Your task to perform on an android device: set the stopwatch Image 0: 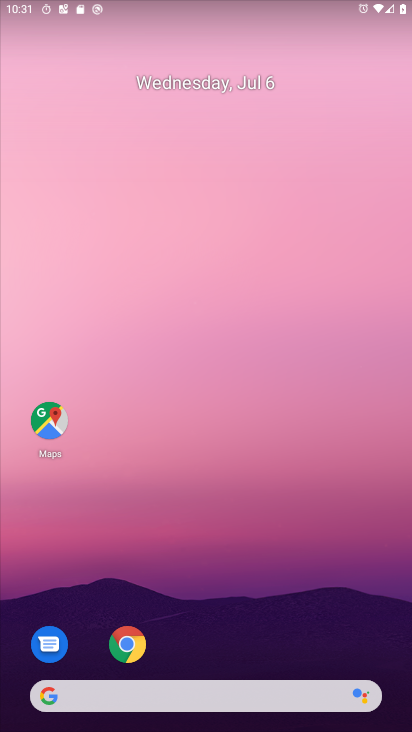
Step 0: drag from (209, 551) to (285, 49)
Your task to perform on an android device: set the stopwatch Image 1: 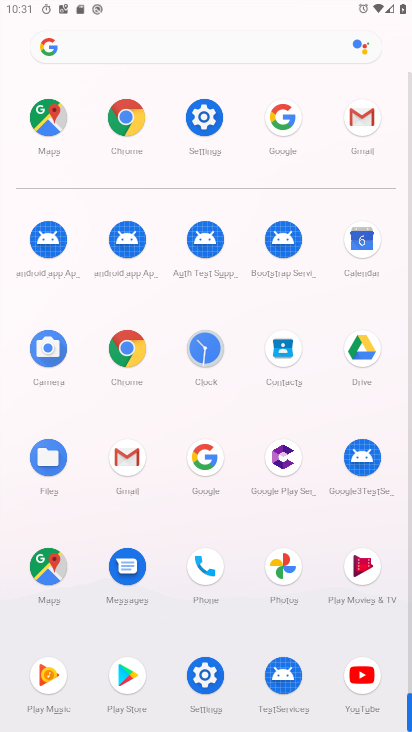
Step 1: click (211, 362)
Your task to perform on an android device: set the stopwatch Image 2: 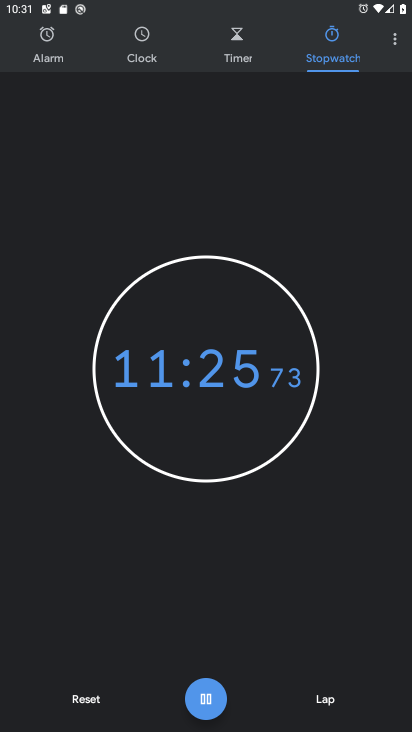
Step 2: task complete